Your task to perform on an android device: turn notification dots off Image 0: 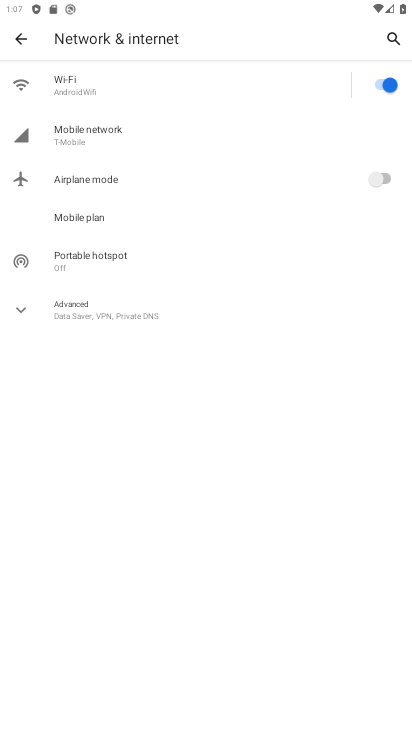
Step 0: click (32, 43)
Your task to perform on an android device: turn notification dots off Image 1: 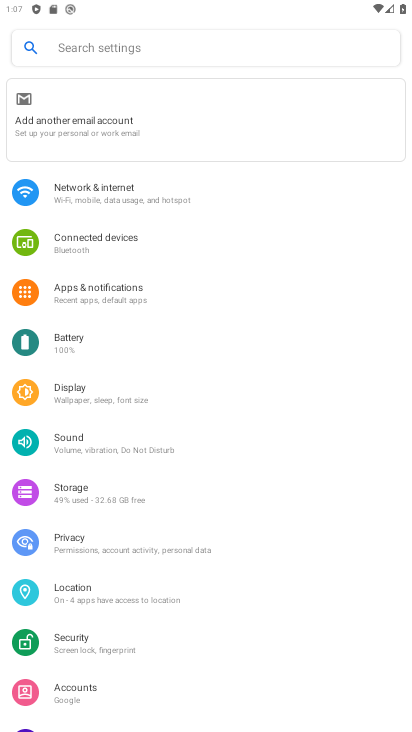
Step 1: click (138, 298)
Your task to perform on an android device: turn notification dots off Image 2: 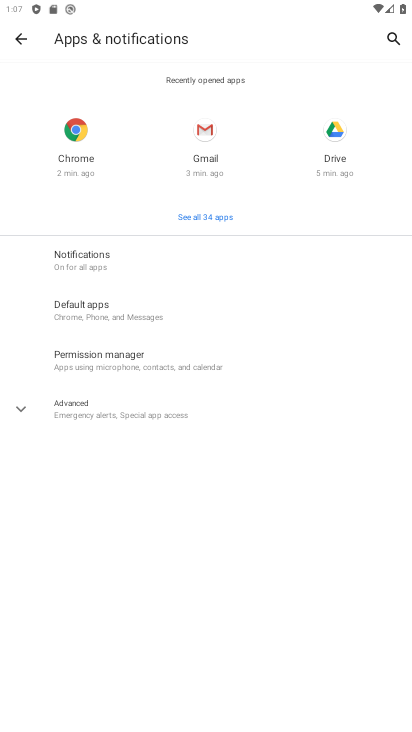
Step 2: click (95, 261)
Your task to perform on an android device: turn notification dots off Image 3: 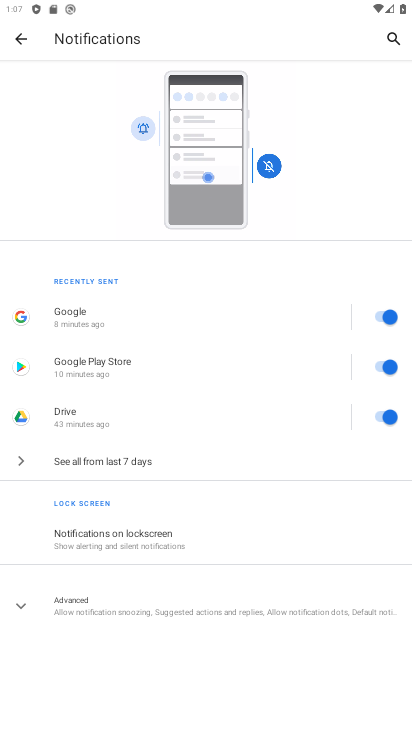
Step 3: click (153, 591)
Your task to perform on an android device: turn notification dots off Image 4: 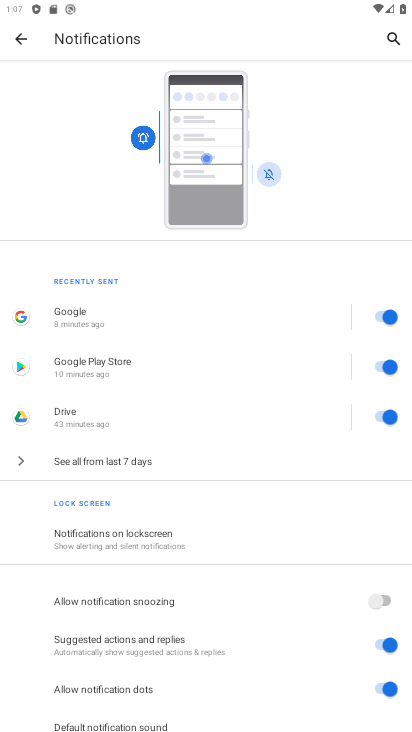
Step 4: click (379, 695)
Your task to perform on an android device: turn notification dots off Image 5: 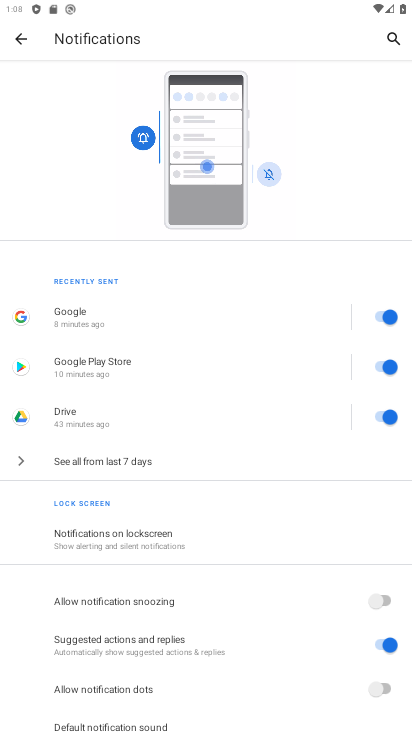
Step 5: task complete